Your task to perform on an android device: Open Youtube and go to the subscriptions tab Image 0: 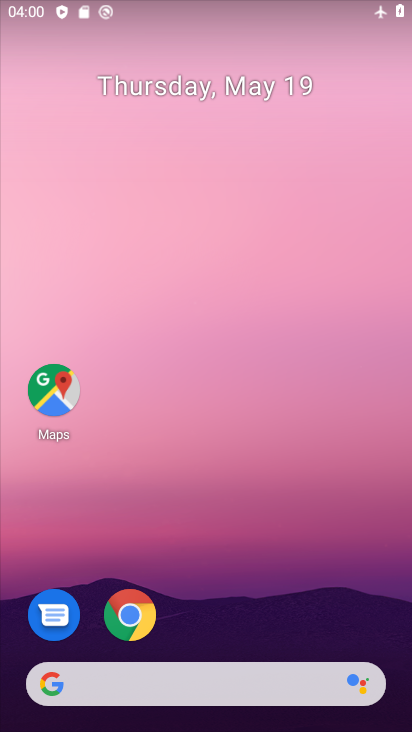
Step 0: drag from (279, 636) to (277, 0)
Your task to perform on an android device: Open Youtube and go to the subscriptions tab Image 1: 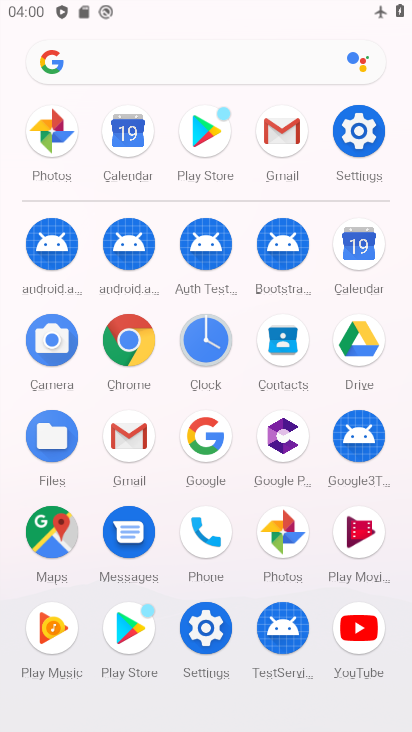
Step 1: click (361, 620)
Your task to perform on an android device: Open Youtube and go to the subscriptions tab Image 2: 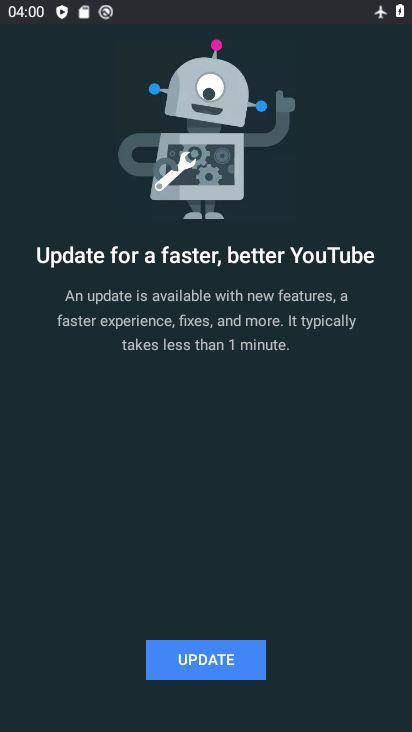
Step 2: click (217, 664)
Your task to perform on an android device: Open Youtube and go to the subscriptions tab Image 3: 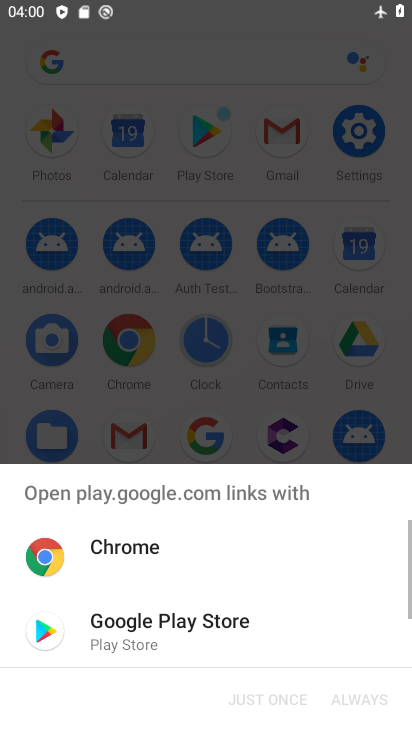
Step 3: click (138, 631)
Your task to perform on an android device: Open Youtube and go to the subscriptions tab Image 4: 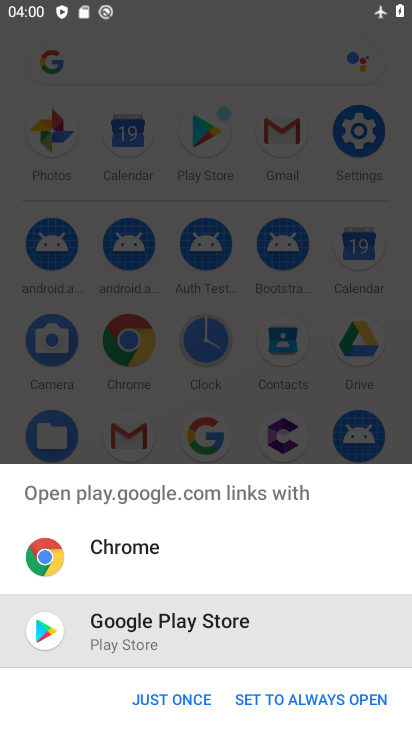
Step 4: click (147, 710)
Your task to perform on an android device: Open Youtube and go to the subscriptions tab Image 5: 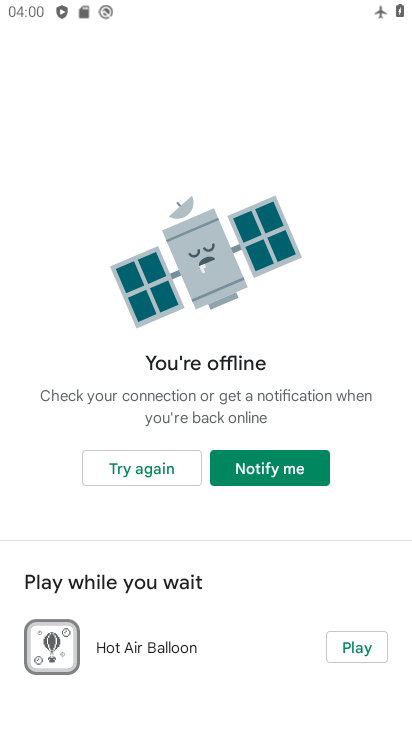
Step 5: task complete